Your task to perform on an android device: Open Google Image 0: 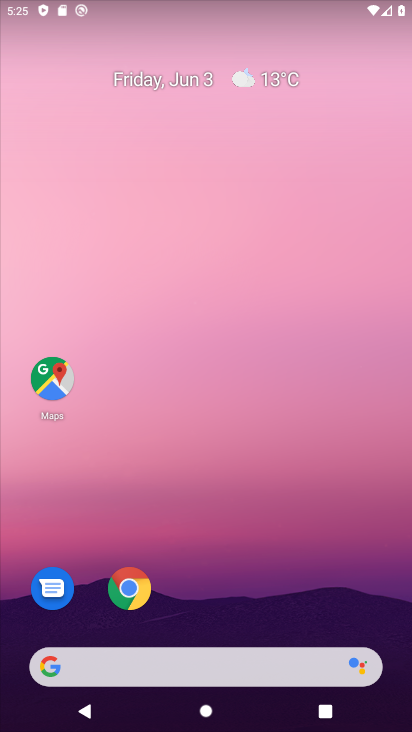
Step 0: drag from (212, 588) to (193, 164)
Your task to perform on an android device: Open Google Image 1: 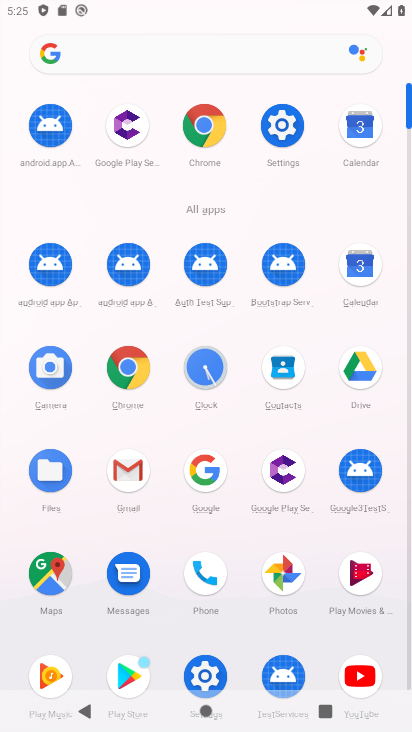
Step 1: click (213, 481)
Your task to perform on an android device: Open Google Image 2: 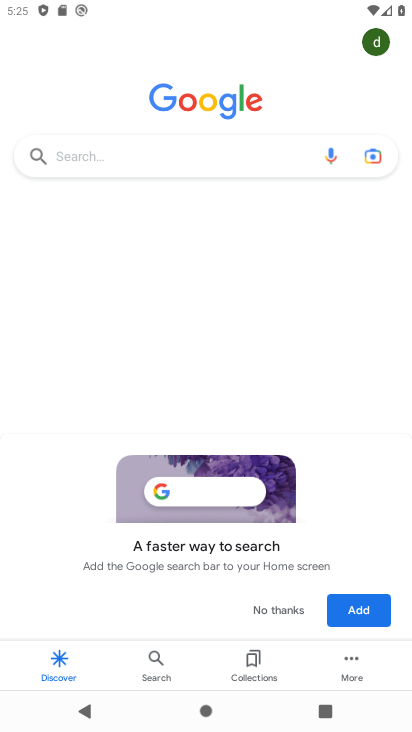
Step 2: task complete